Your task to perform on an android device: change the clock display to show seconds Image 0: 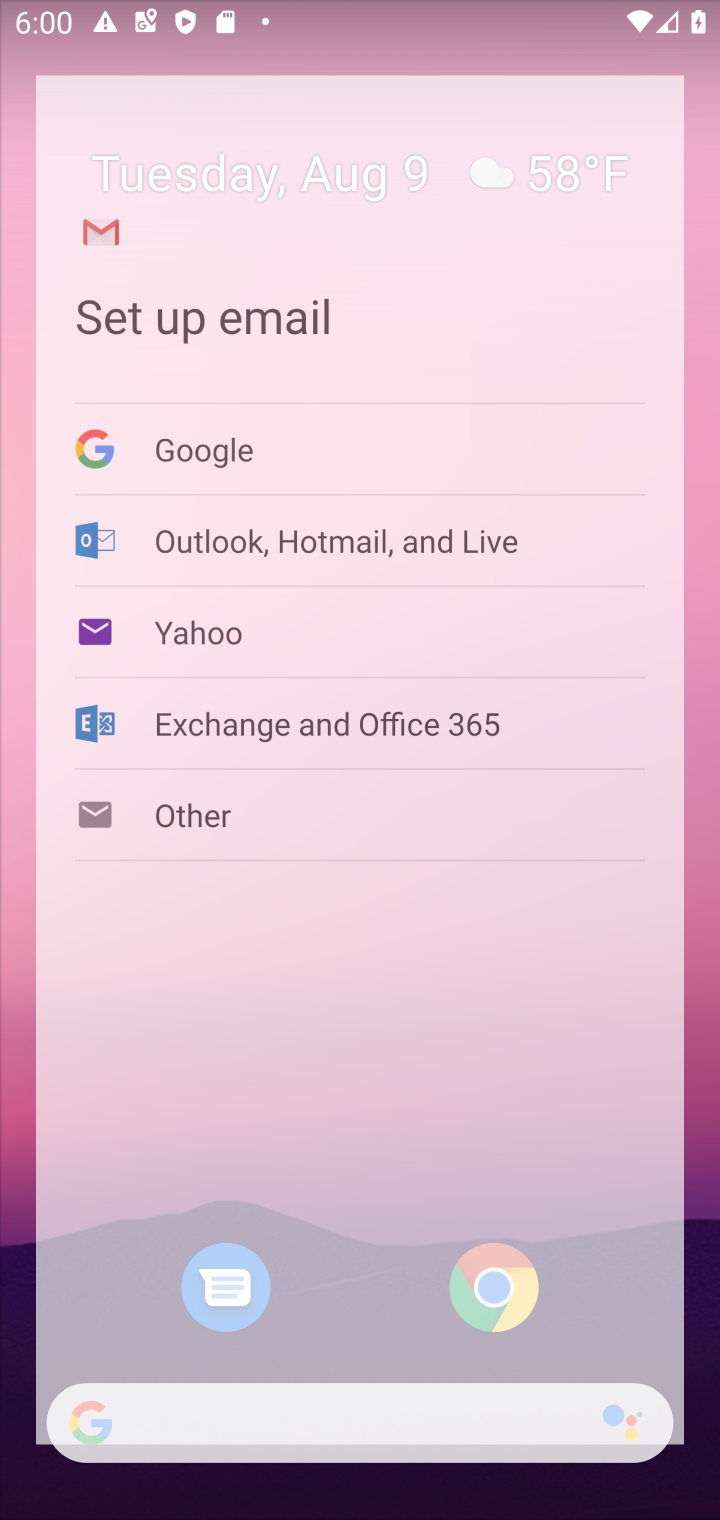
Step 0: click (428, 1277)
Your task to perform on an android device: change the clock display to show seconds Image 1: 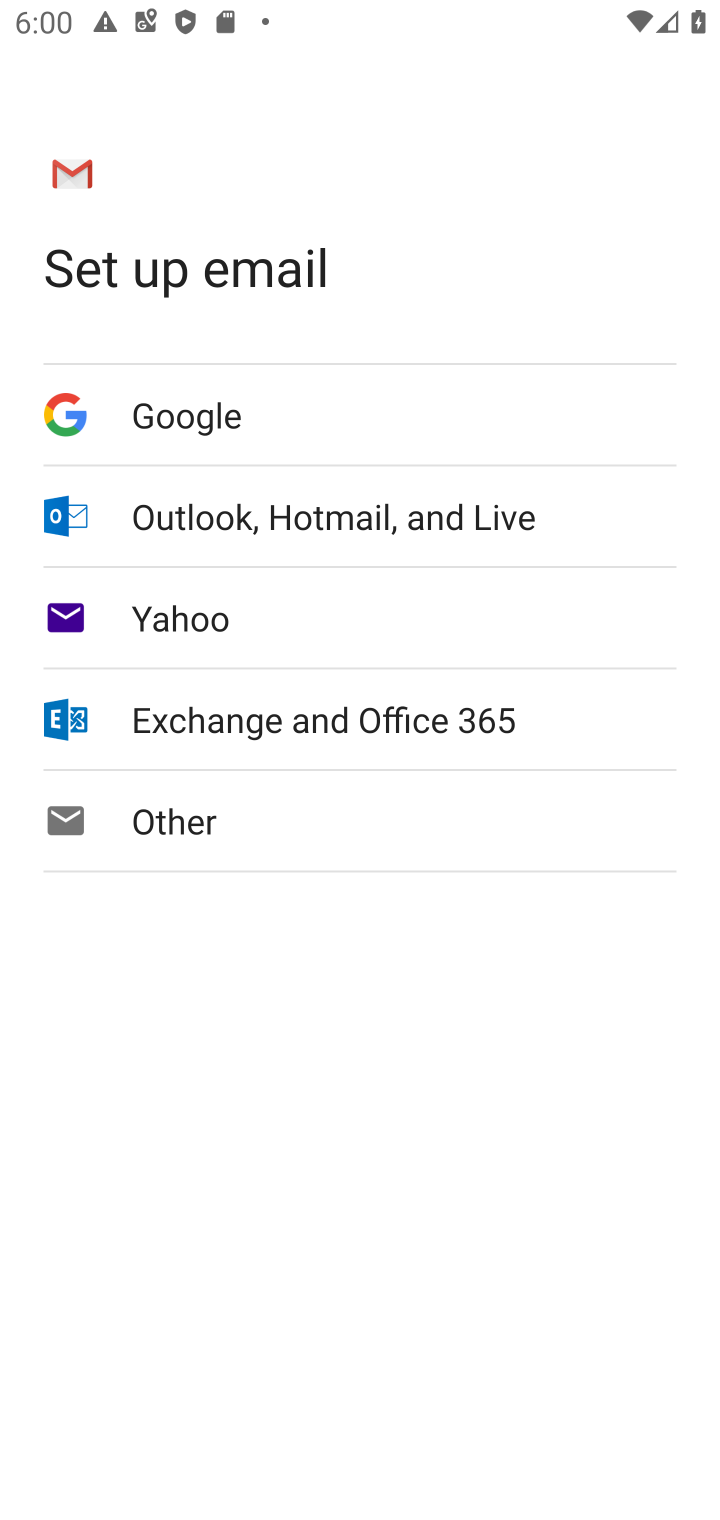
Step 1: press home button
Your task to perform on an android device: change the clock display to show seconds Image 2: 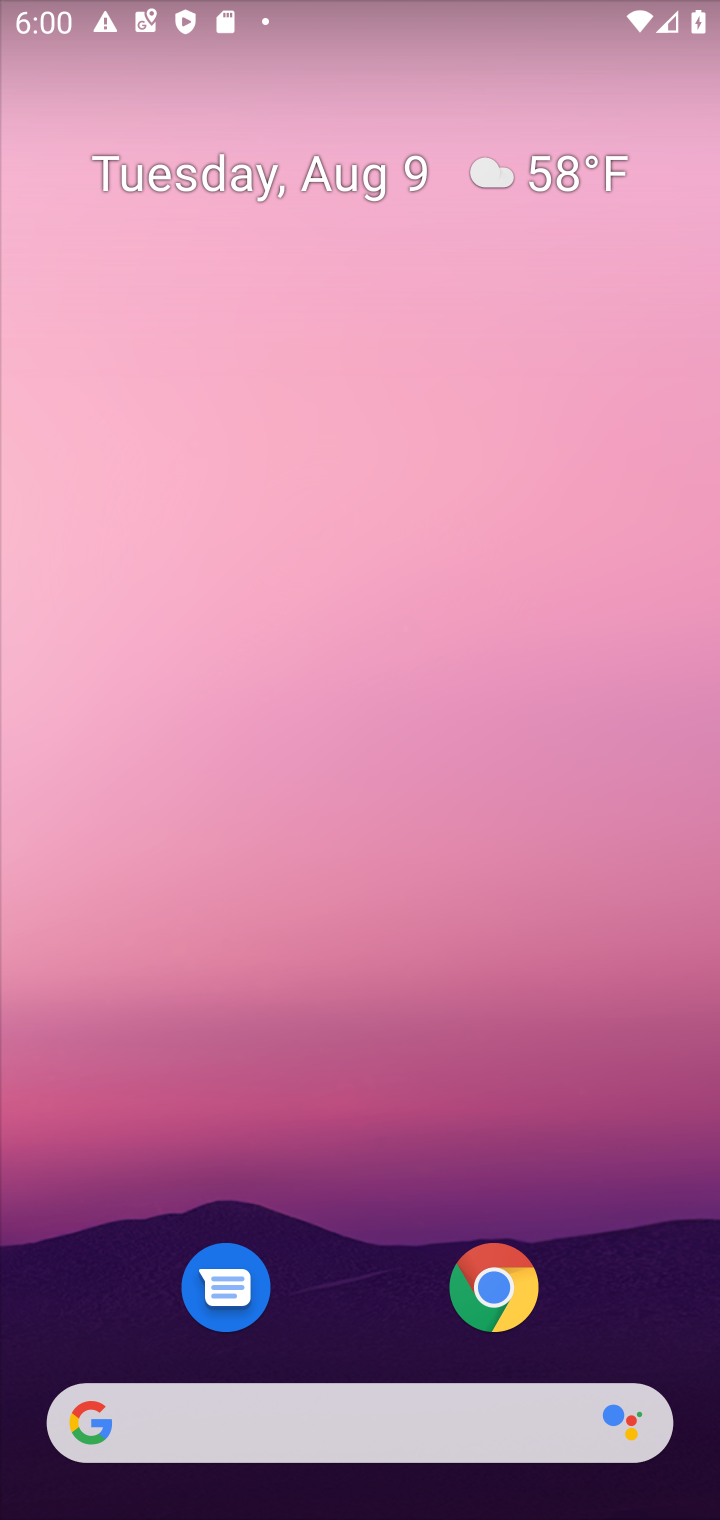
Step 2: click (481, 1299)
Your task to perform on an android device: change the clock display to show seconds Image 3: 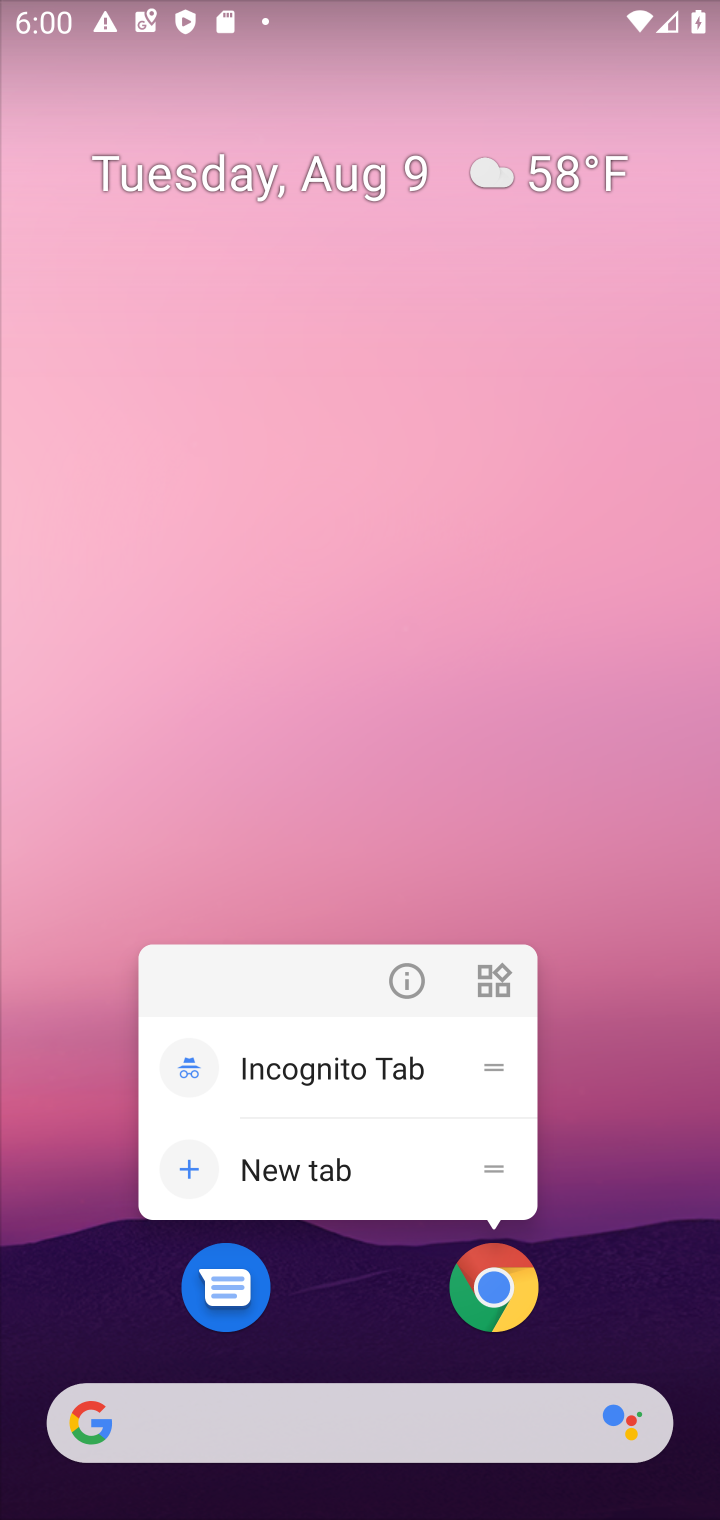
Step 3: click (523, 1316)
Your task to perform on an android device: change the clock display to show seconds Image 4: 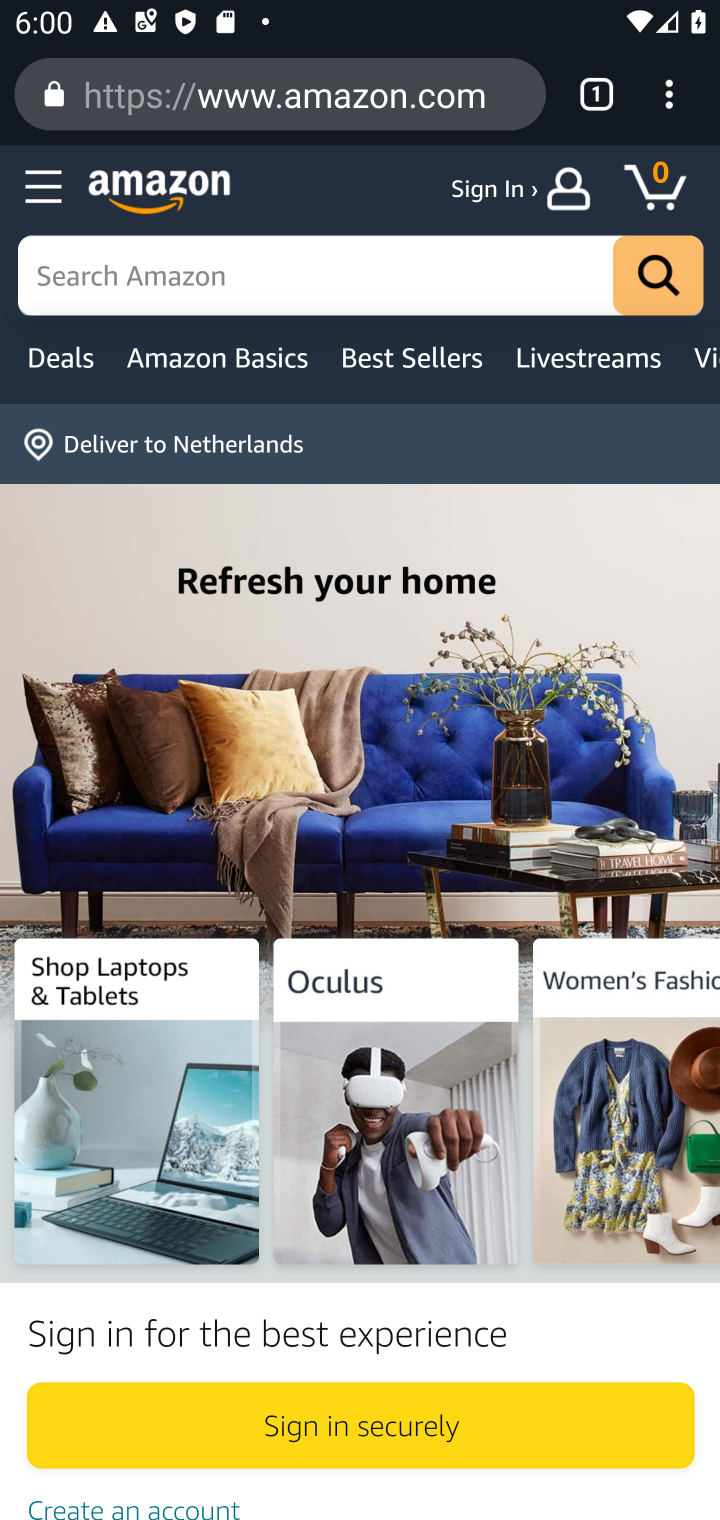
Step 4: click (692, 107)
Your task to perform on an android device: change the clock display to show seconds Image 5: 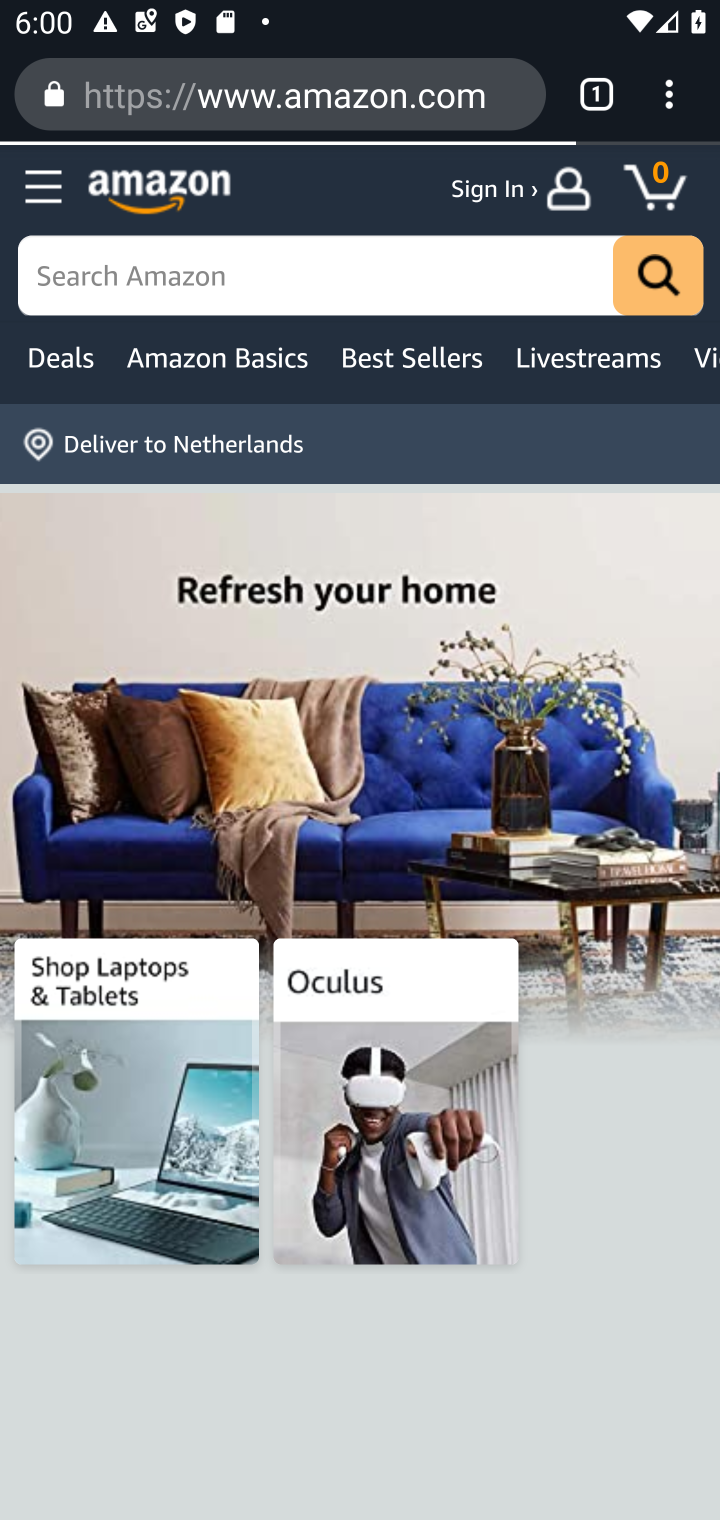
Step 5: click (692, 107)
Your task to perform on an android device: change the clock display to show seconds Image 6: 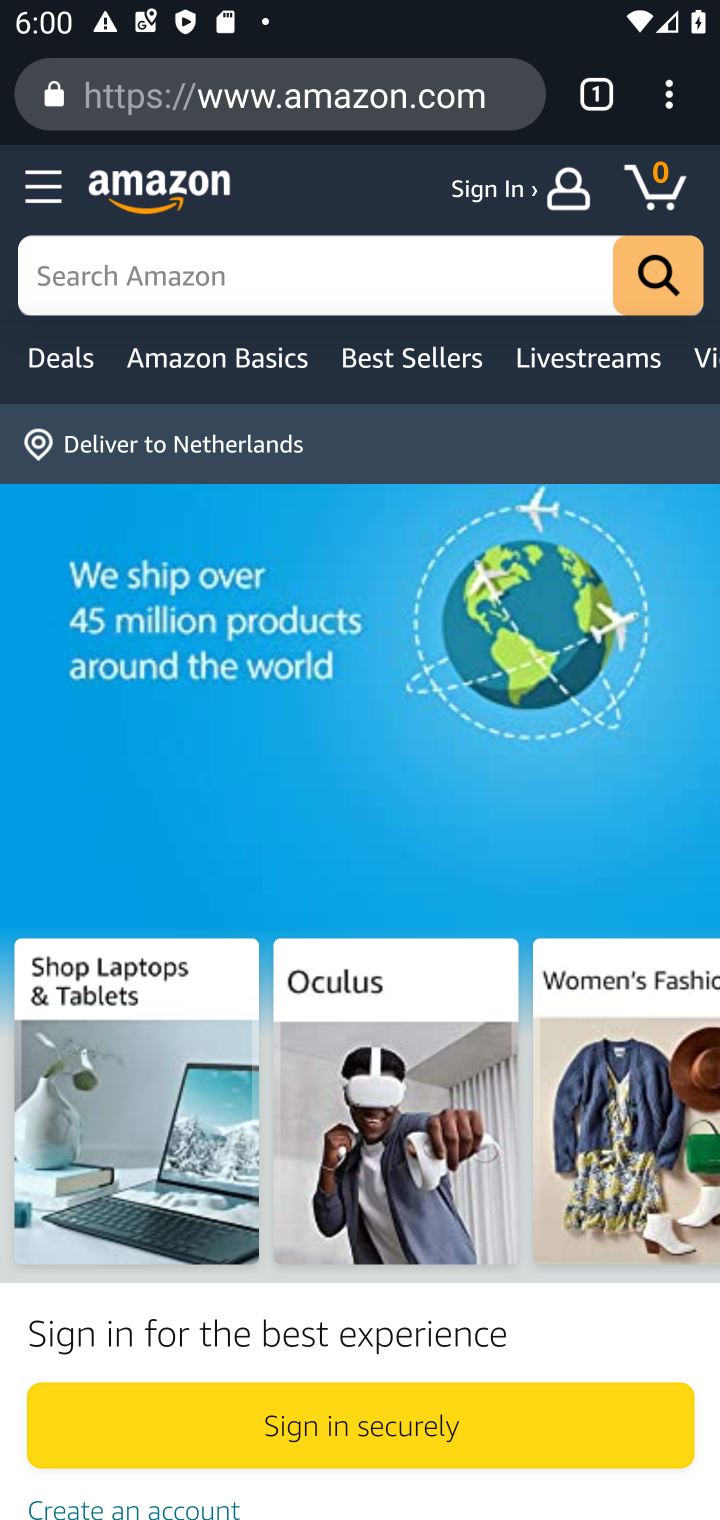
Step 6: click (676, 108)
Your task to perform on an android device: change the clock display to show seconds Image 7: 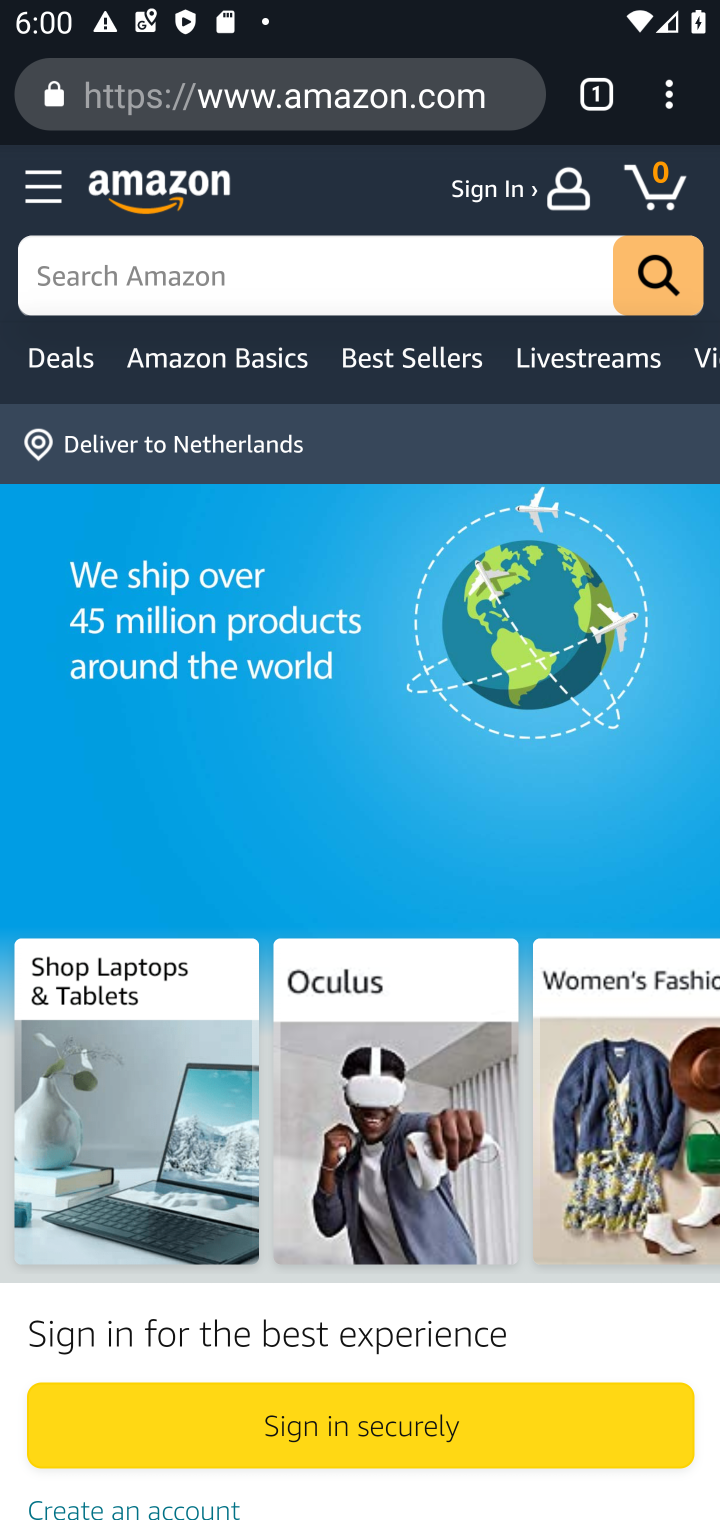
Step 7: click (676, 108)
Your task to perform on an android device: change the clock display to show seconds Image 8: 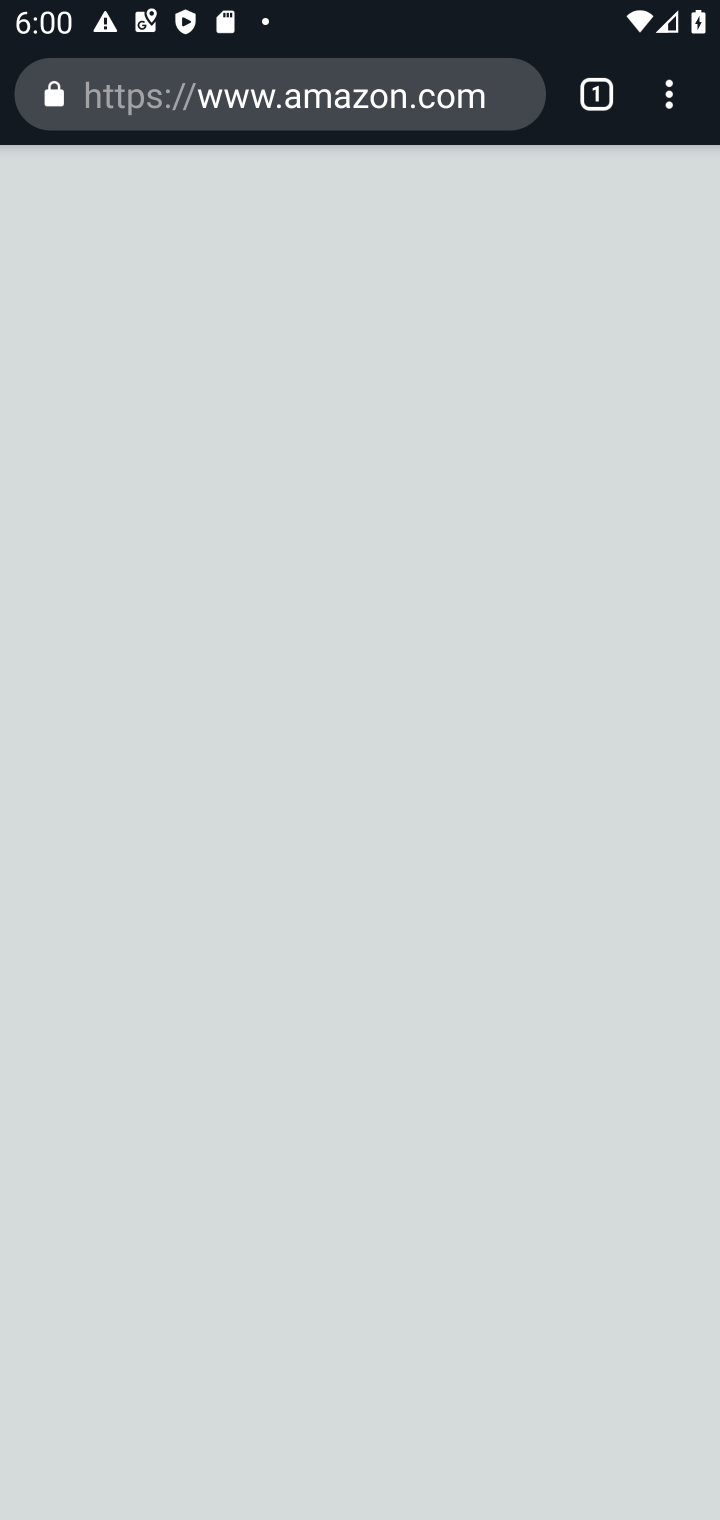
Step 8: task complete